Your task to perform on an android device: turn off data saver in the chrome app Image 0: 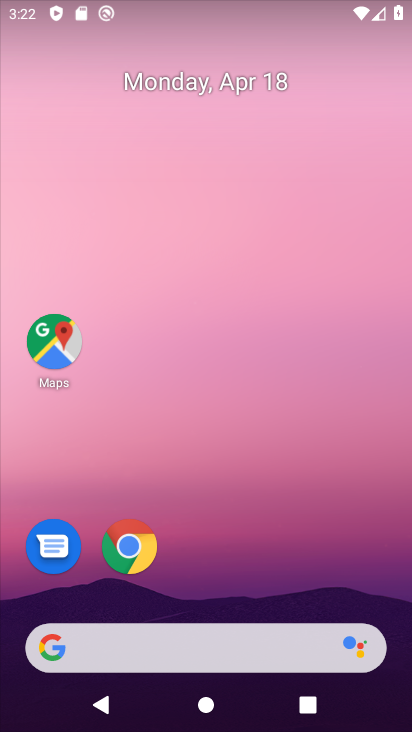
Step 0: click (134, 543)
Your task to perform on an android device: turn off data saver in the chrome app Image 1: 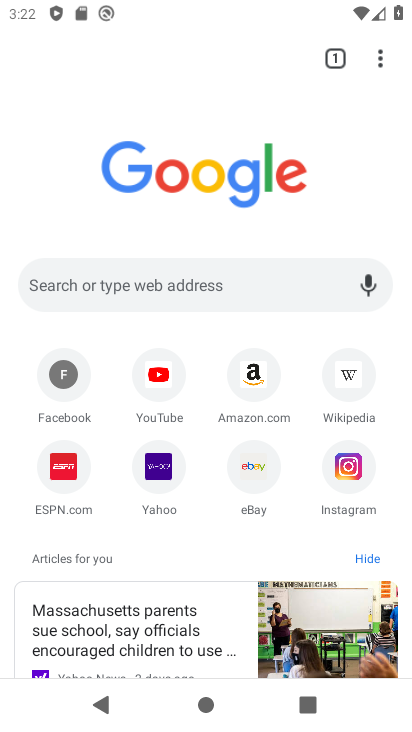
Step 1: click (377, 57)
Your task to perform on an android device: turn off data saver in the chrome app Image 2: 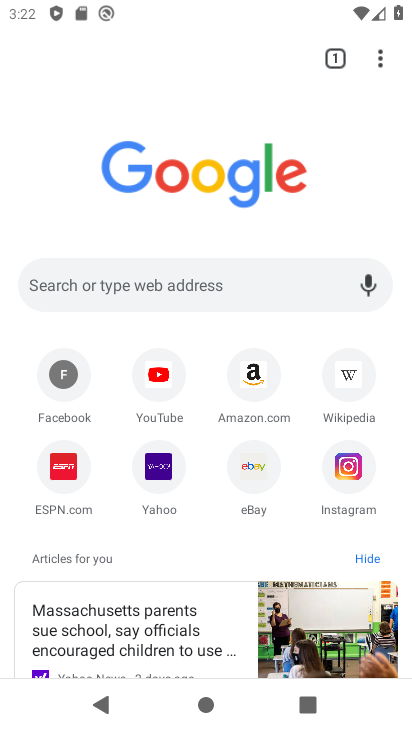
Step 2: click (378, 61)
Your task to perform on an android device: turn off data saver in the chrome app Image 3: 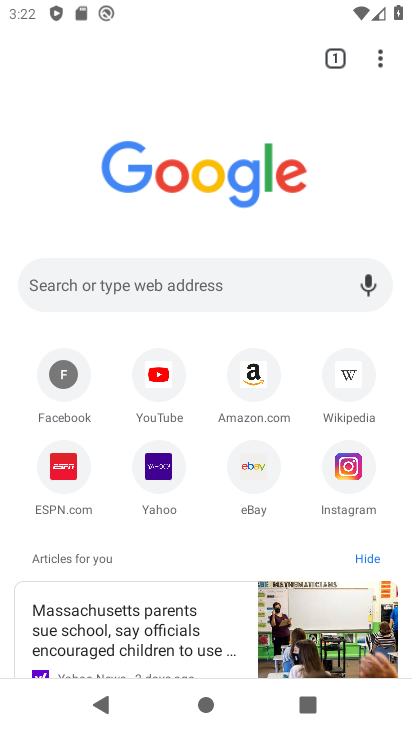
Step 3: drag from (383, 57) to (183, 505)
Your task to perform on an android device: turn off data saver in the chrome app Image 4: 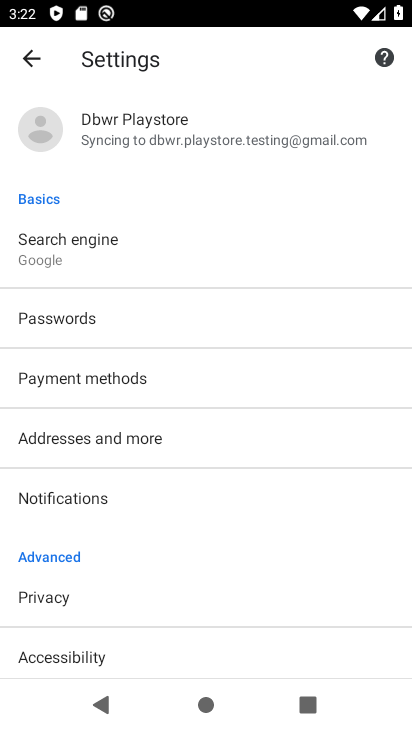
Step 4: drag from (231, 569) to (225, 156)
Your task to perform on an android device: turn off data saver in the chrome app Image 5: 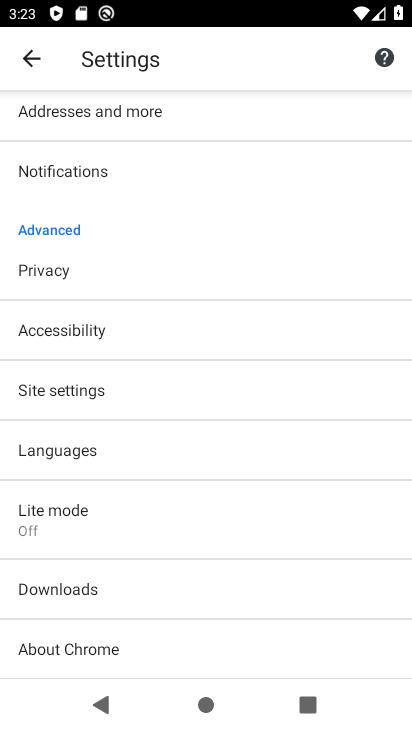
Step 5: click (38, 533)
Your task to perform on an android device: turn off data saver in the chrome app Image 6: 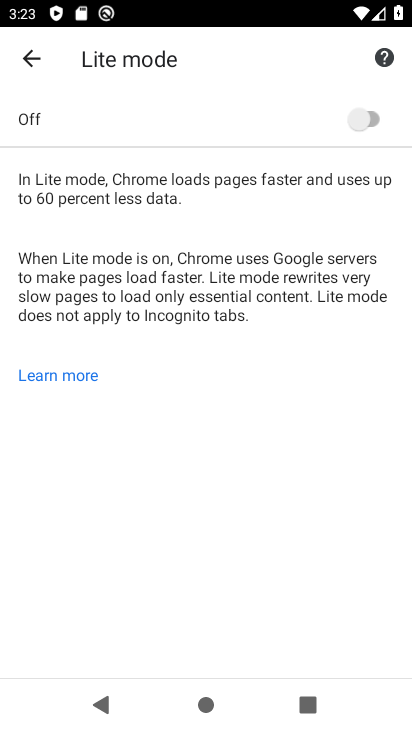
Step 6: task complete